Your task to perform on an android device: Empty the shopping cart on walmart.com. Search for energizer triple a on walmart.com, select the first entry, and add it to the cart. Image 0: 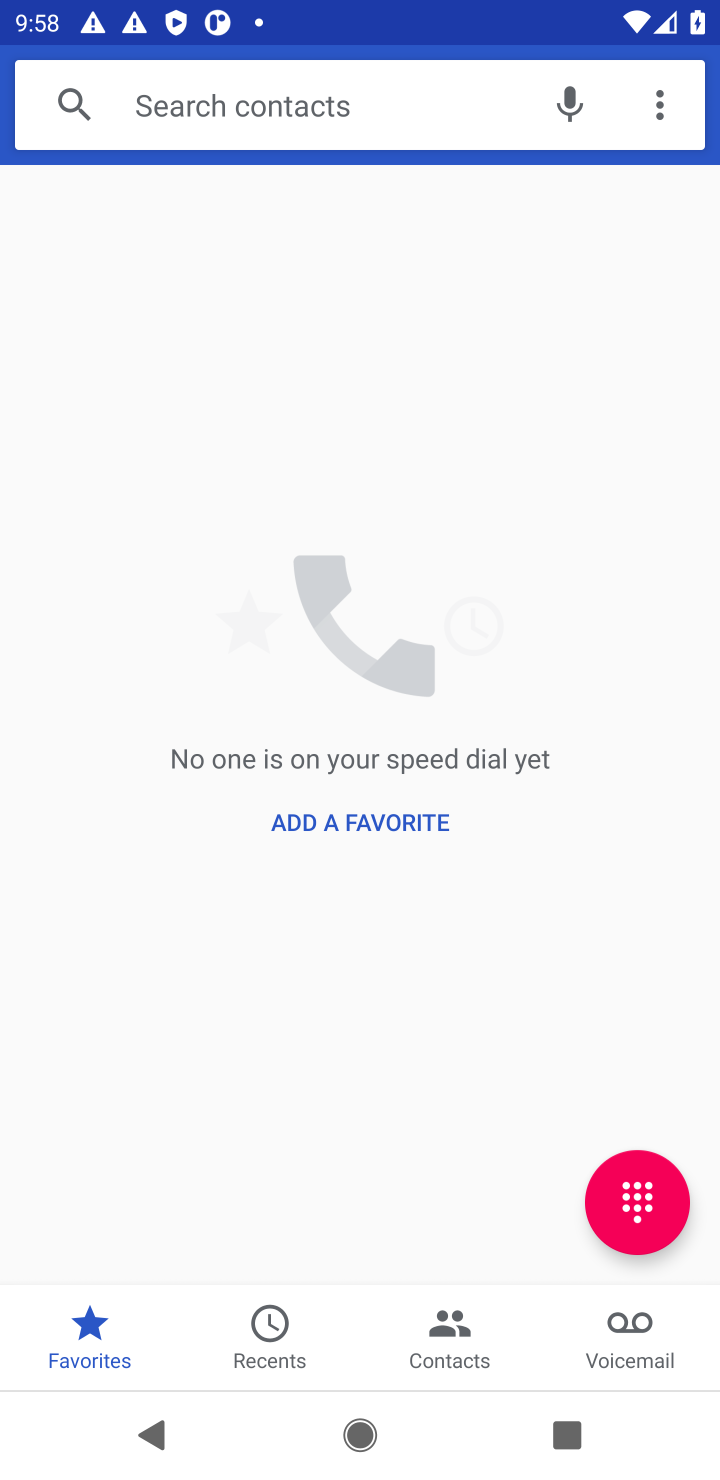
Step 0: task complete